Your task to perform on an android device: toggle airplane mode Image 0: 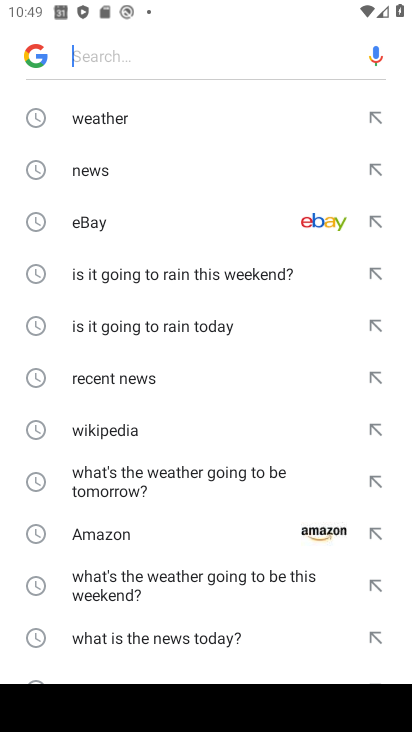
Step 0: press home button
Your task to perform on an android device: toggle airplane mode Image 1: 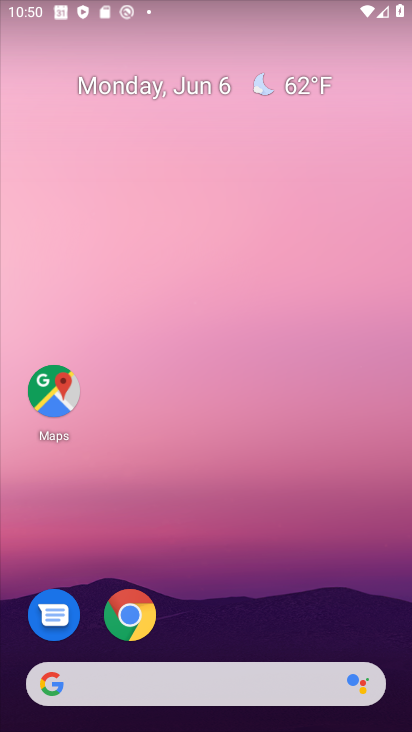
Step 1: drag from (179, 678) to (260, 5)
Your task to perform on an android device: toggle airplane mode Image 2: 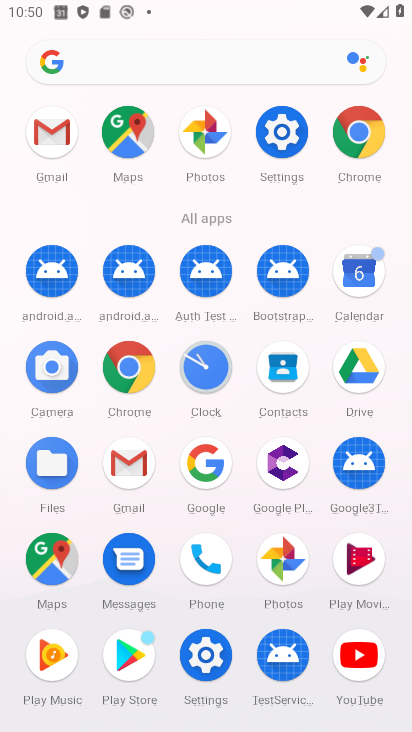
Step 2: click (281, 172)
Your task to perform on an android device: toggle airplane mode Image 3: 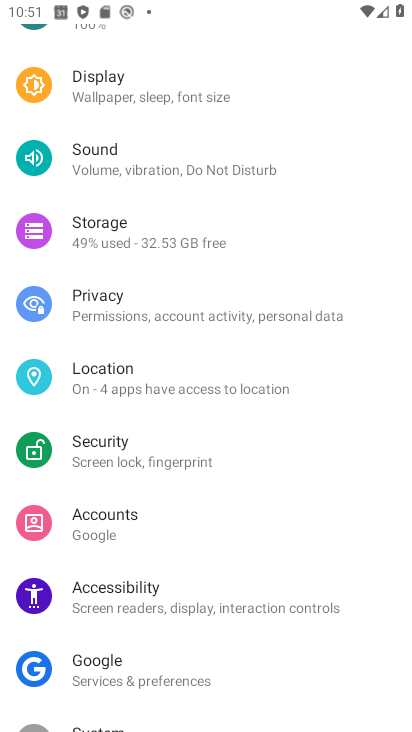
Step 3: drag from (106, 147) to (74, 697)
Your task to perform on an android device: toggle airplane mode Image 4: 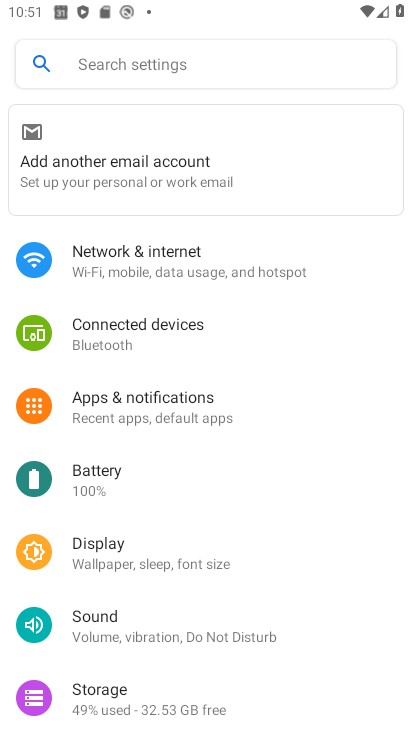
Step 4: click (195, 259)
Your task to perform on an android device: toggle airplane mode Image 5: 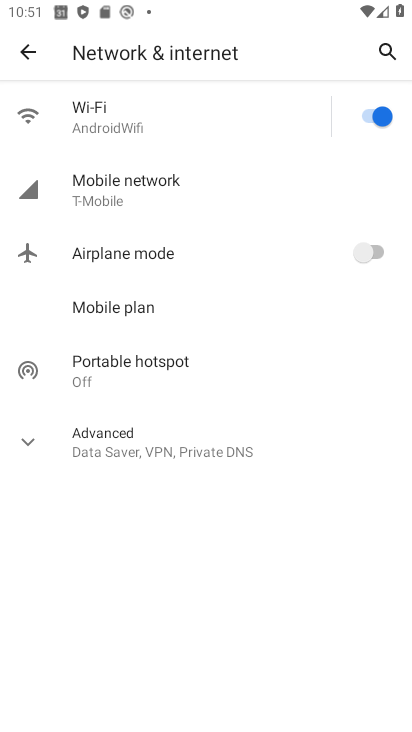
Step 5: click (365, 255)
Your task to perform on an android device: toggle airplane mode Image 6: 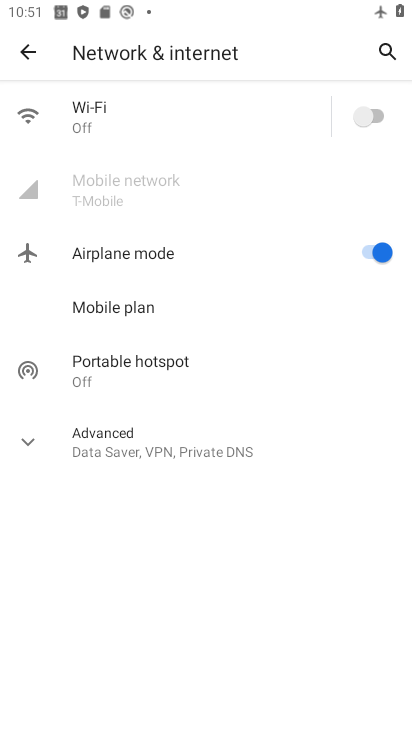
Step 6: task complete